Your task to perform on an android device: turn off data saver in the chrome app Image 0: 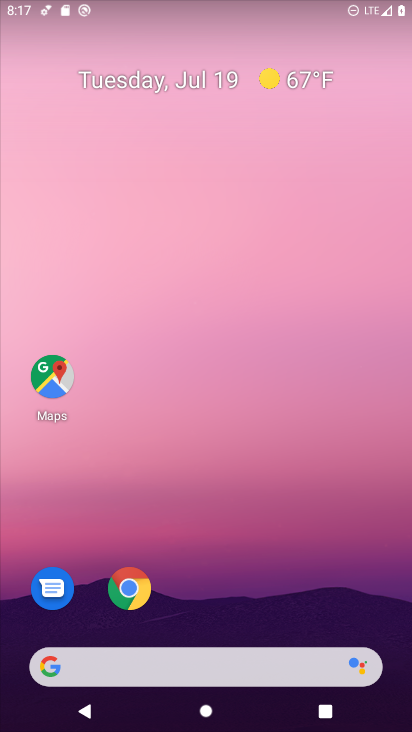
Step 0: drag from (375, 607) to (391, 149)
Your task to perform on an android device: turn off data saver in the chrome app Image 1: 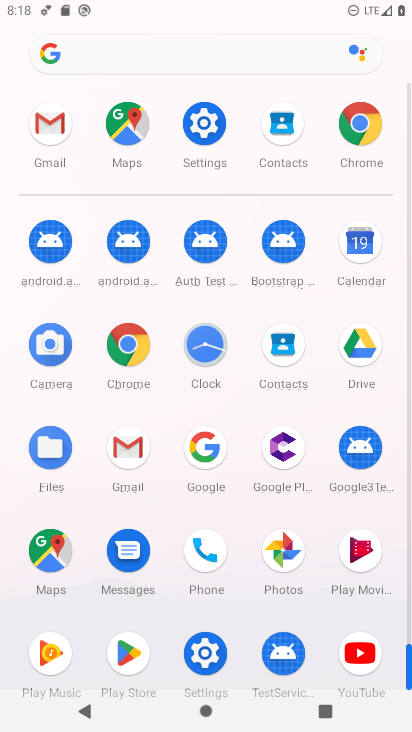
Step 1: click (145, 337)
Your task to perform on an android device: turn off data saver in the chrome app Image 2: 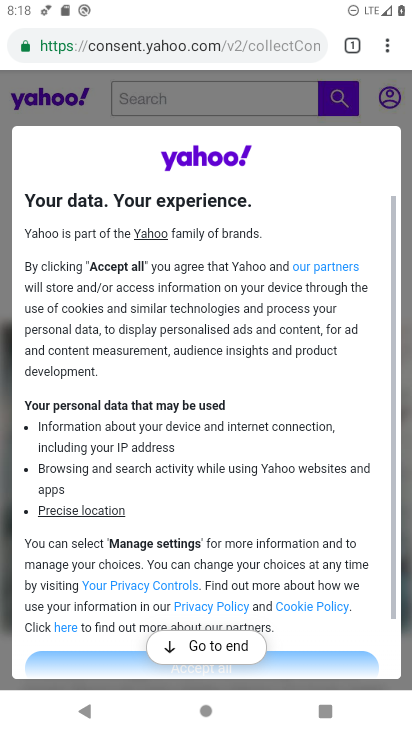
Step 2: click (389, 48)
Your task to perform on an android device: turn off data saver in the chrome app Image 3: 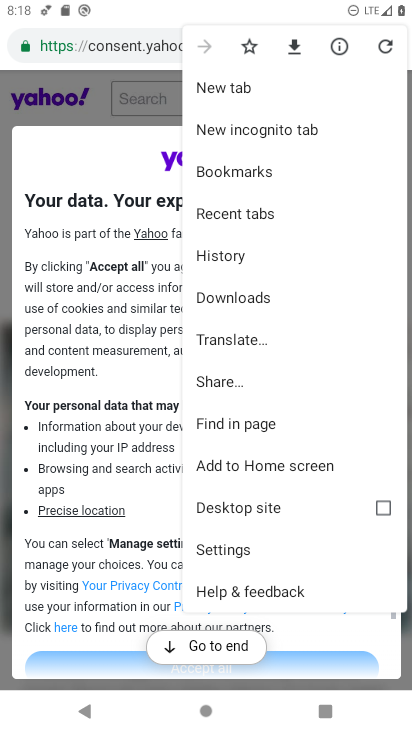
Step 3: click (240, 552)
Your task to perform on an android device: turn off data saver in the chrome app Image 4: 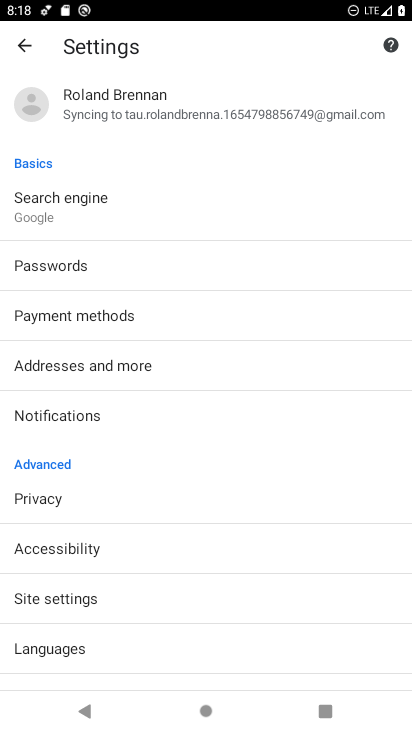
Step 4: drag from (265, 578) to (270, 492)
Your task to perform on an android device: turn off data saver in the chrome app Image 5: 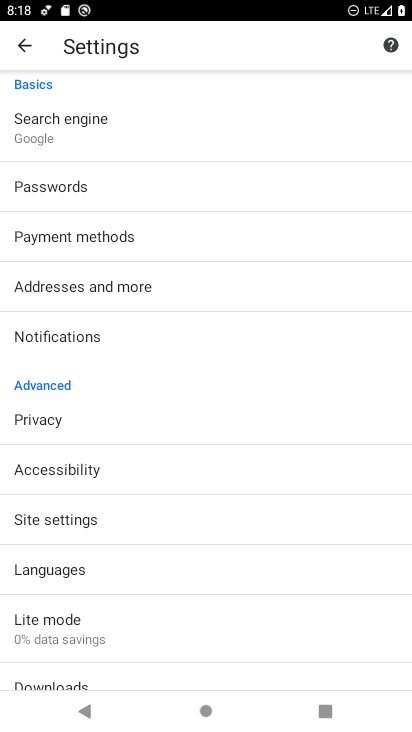
Step 5: drag from (249, 590) to (253, 506)
Your task to perform on an android device: turn off data saver in the chrome app Image 6: 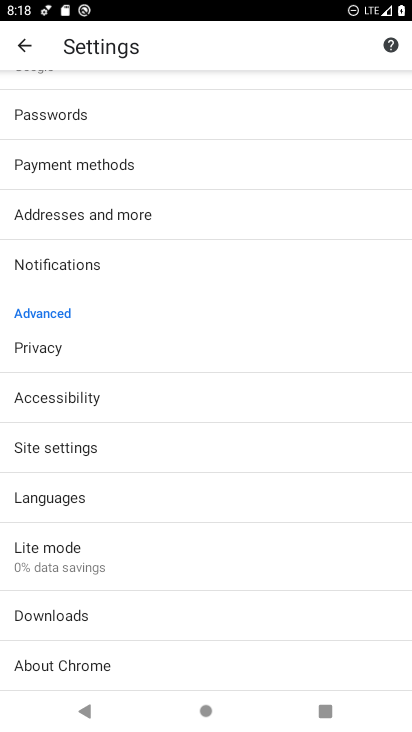
Step 6: click (238, 557)
Your task to perform on an android device: turn off data saver in the chrome app Image 7: 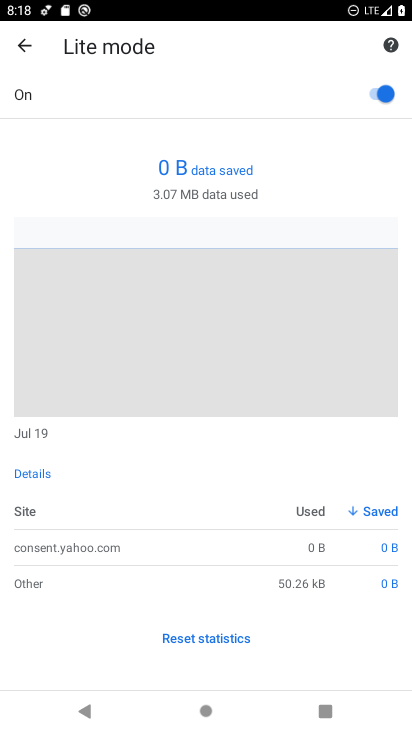
Step 7: click (377, 99)
Your task to perform on an android device: turn off data saver in the chrome app Image 8: 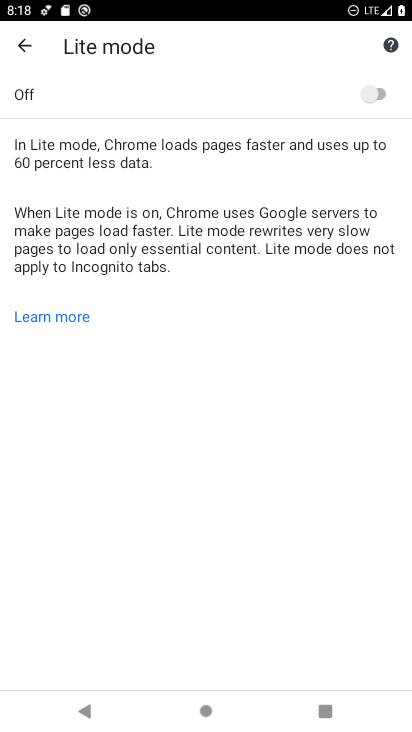
Step 8: task complete